Your task to perform on an android device: Go to Wikipedia Image 0: 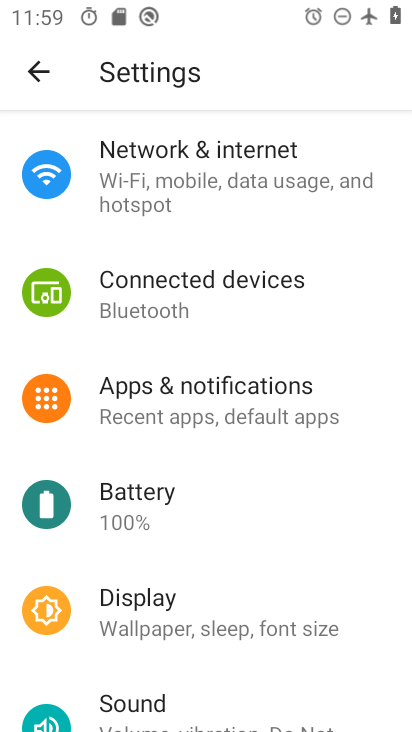
Step 0: press home button
Your task to perform on an android device: Go to Wikipedia Image 1: 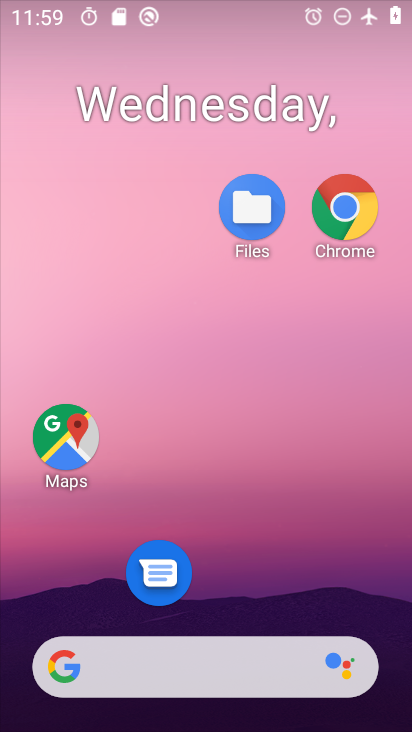
Step 1: drag from (119, 624) to (285, 1)
Your task to perform on an android device: Go to Wikipedia Image 2: 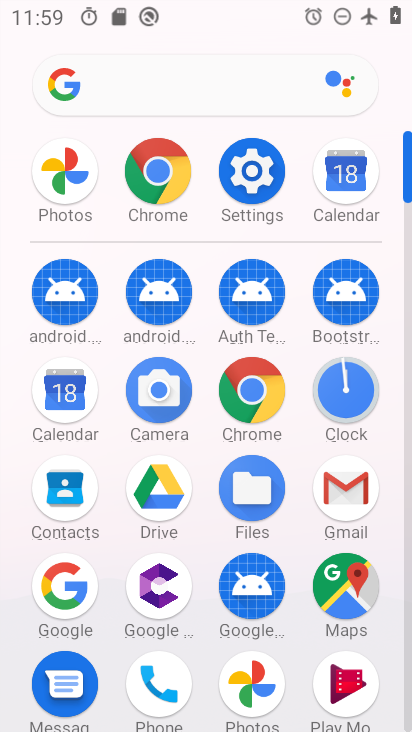
Step 2: click (258, 421)
Your task to perform on an android device: Go to Wikipedia Image 3: 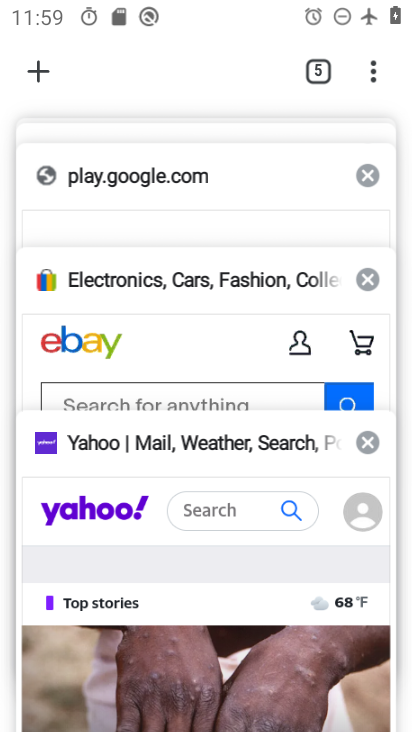
Step 3: click (30, 72)
Your task to perform on an android device: Go to Wikipedia Image 4: 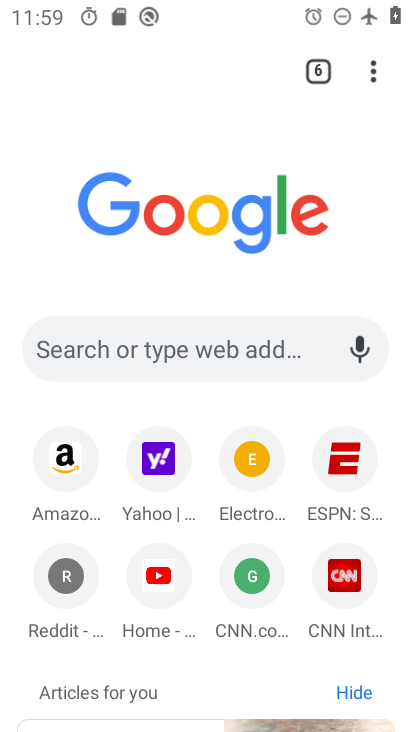
Step 4: click (187, 366)
Your task to perform on an android device: Go to Wikipedia Image 5: 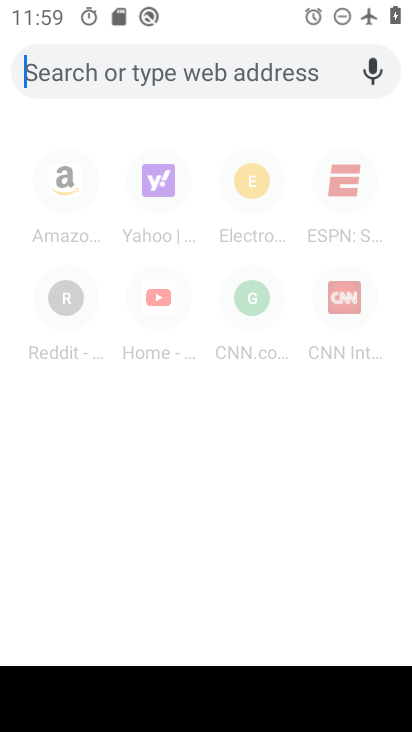
Step 5: type "wikipedia"
Your task to perform on an android device: Go to Wikipedia Image 6: 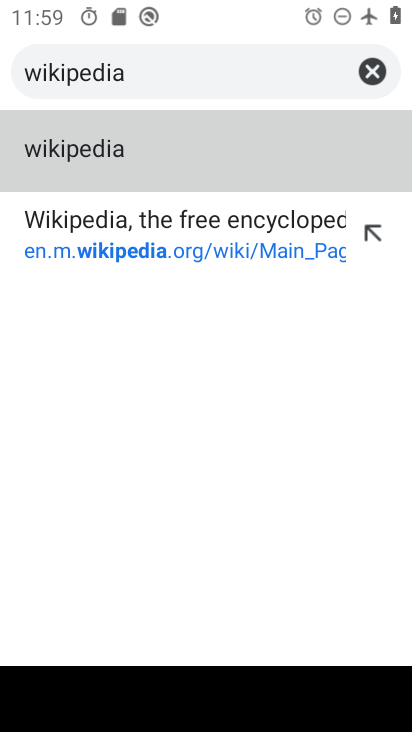
Step 6: click (249, 255)
Your task to perform on an android device: Go to Wikipedia Image 7: 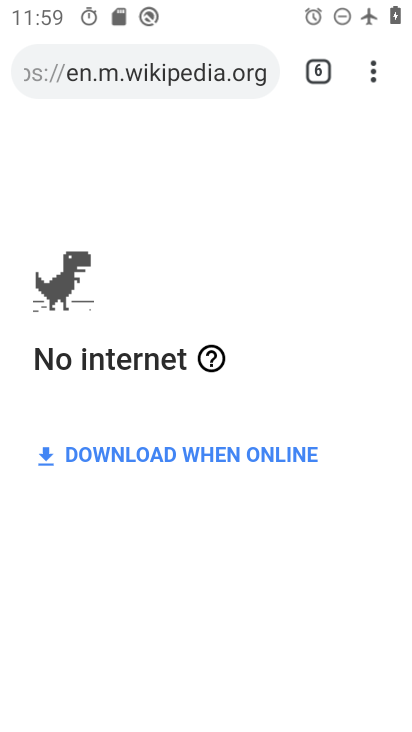
Step 7: task complete